Your task to perform on an android device: clear history in the chrome app Image 0: 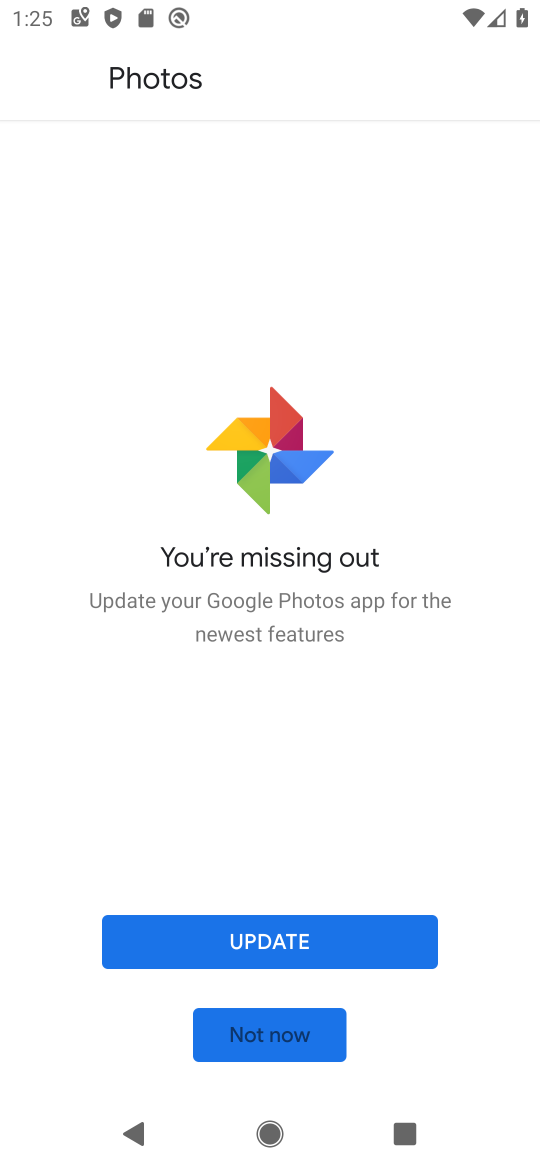
Step 0: press home button
Your task to perform on an android device: clear history in the chrome app Image 1: 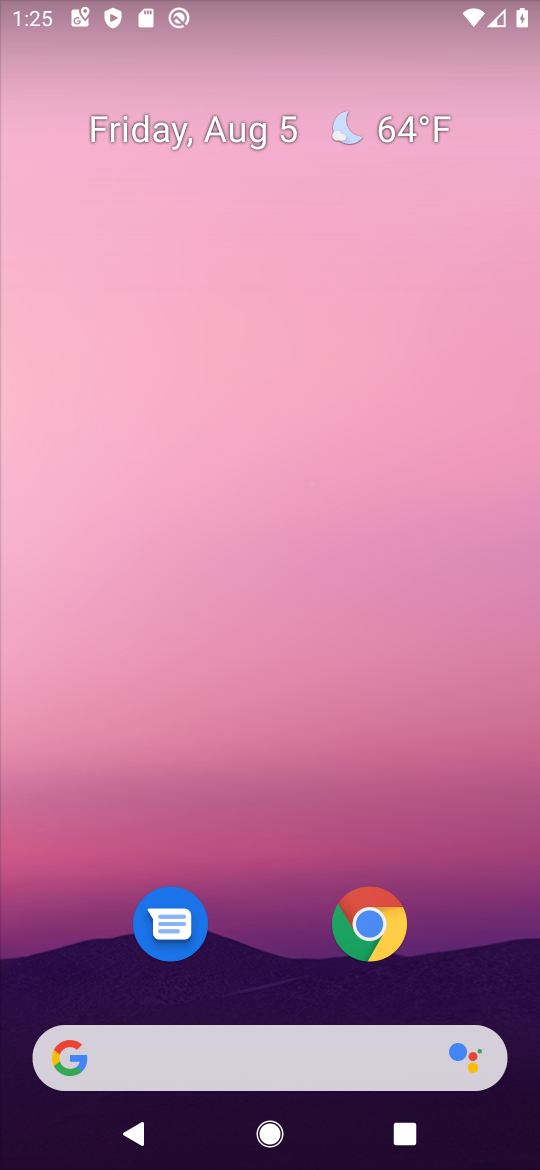
Step 1: click (374, 923)
Your task to perform on an android device: clear history in the chrome app Image 2: 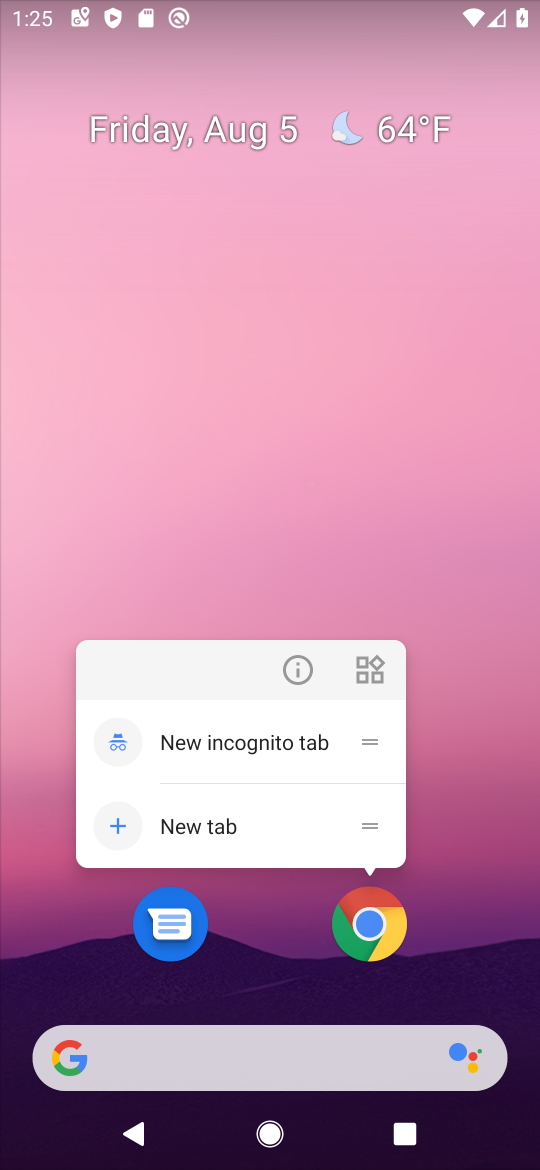
Step 2: click (374, 923)
Your task to perform on an android device: clear history in the chrome app Image 3: 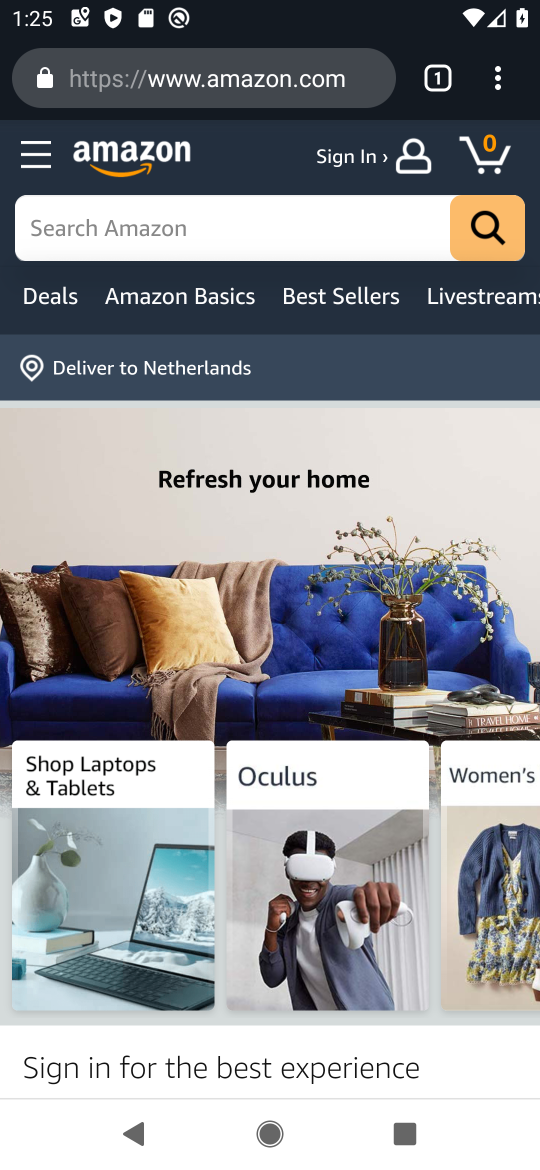
Step 3: click (501, 82)
Your task to perform on an android device: clear history in the chrome app Image 4: 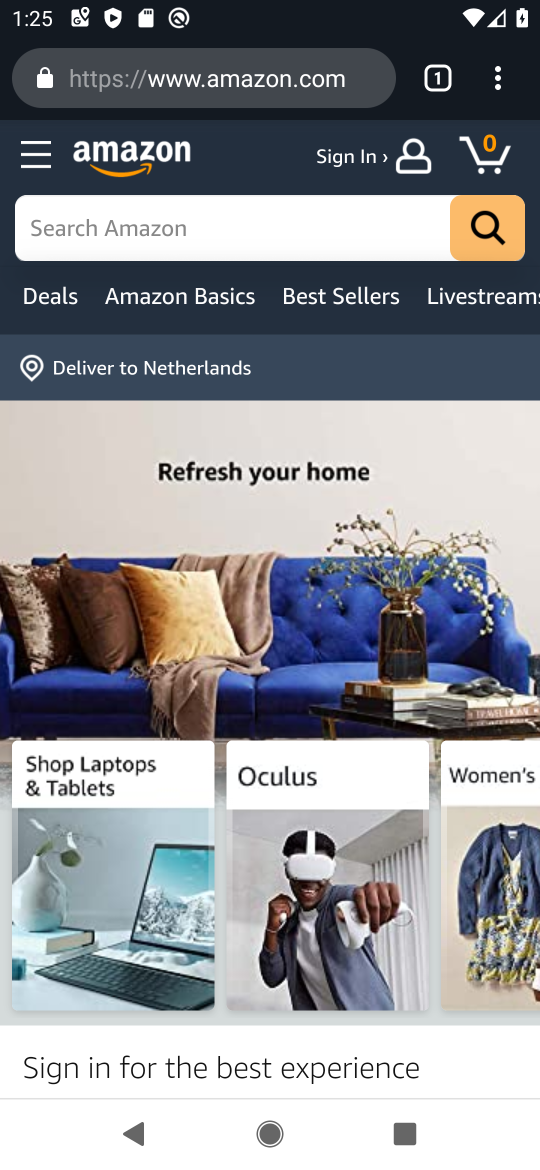
Step 4: click (510, 84)
Your task to perform on an android device: clear history in the chrome app Image 5: 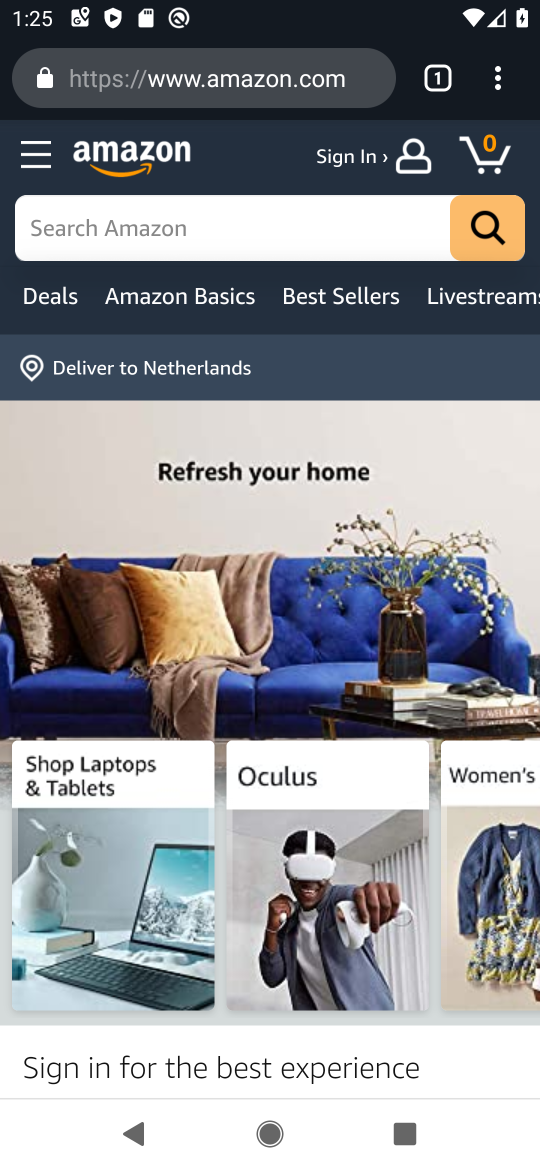
Step 5: drag from (504, 72) to (287, 544)
Your task to perform on an android device: clear history in the chrome app Image 6: 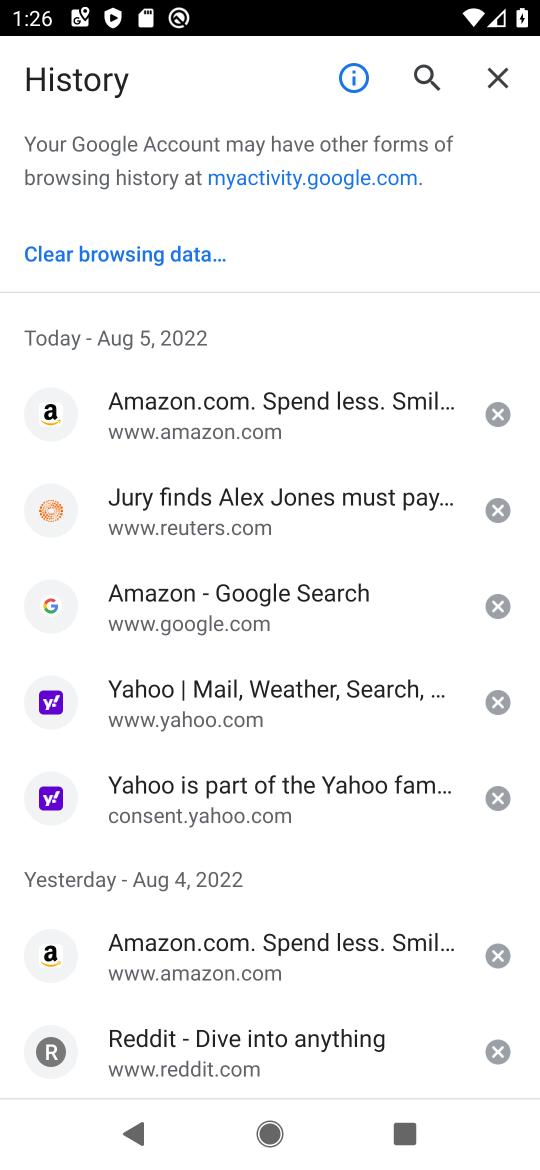
Step 6: click (144, 254)
Your task to perform on an android device: clear history in the chrome app Image 7: 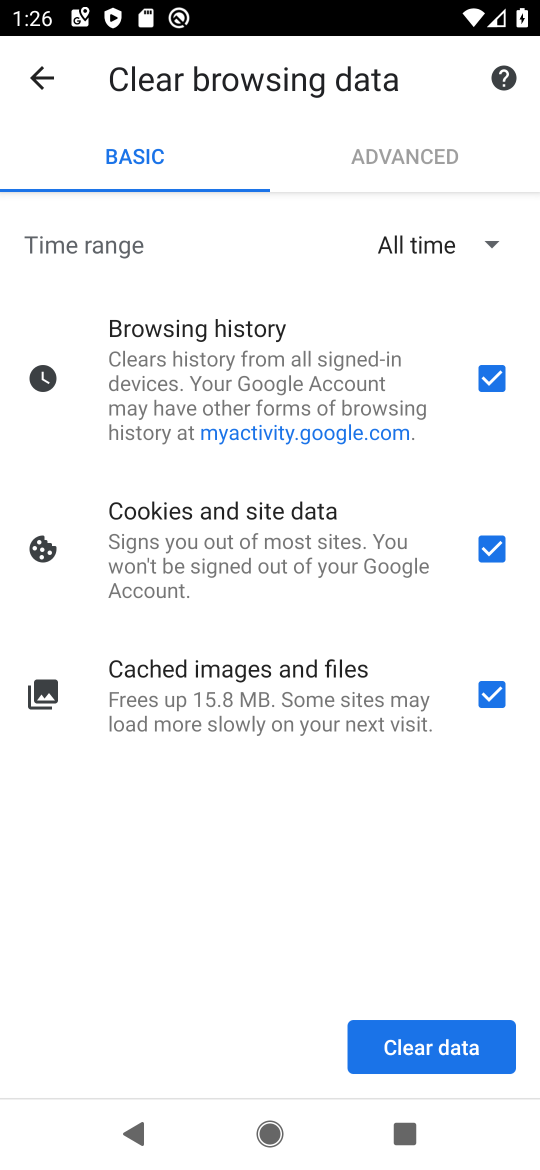
Step 7: click (441, 1042)
Your task to perform on an android device: clear history in the chrome app Image 8: 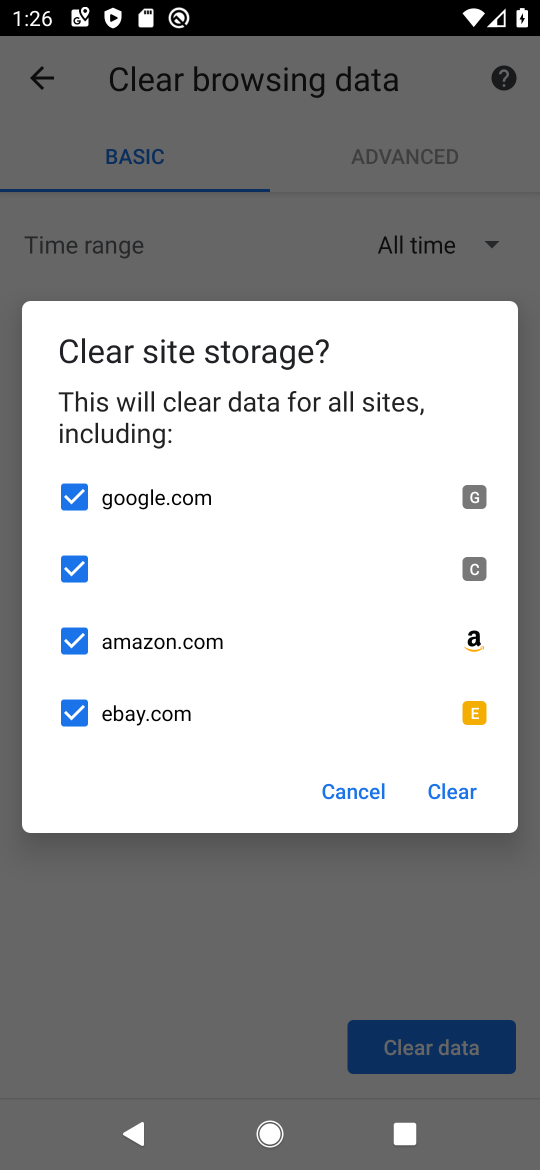
Step 8: click (473, 803)
Your task to perform on an android device: clear history in the chrome app Image 9: 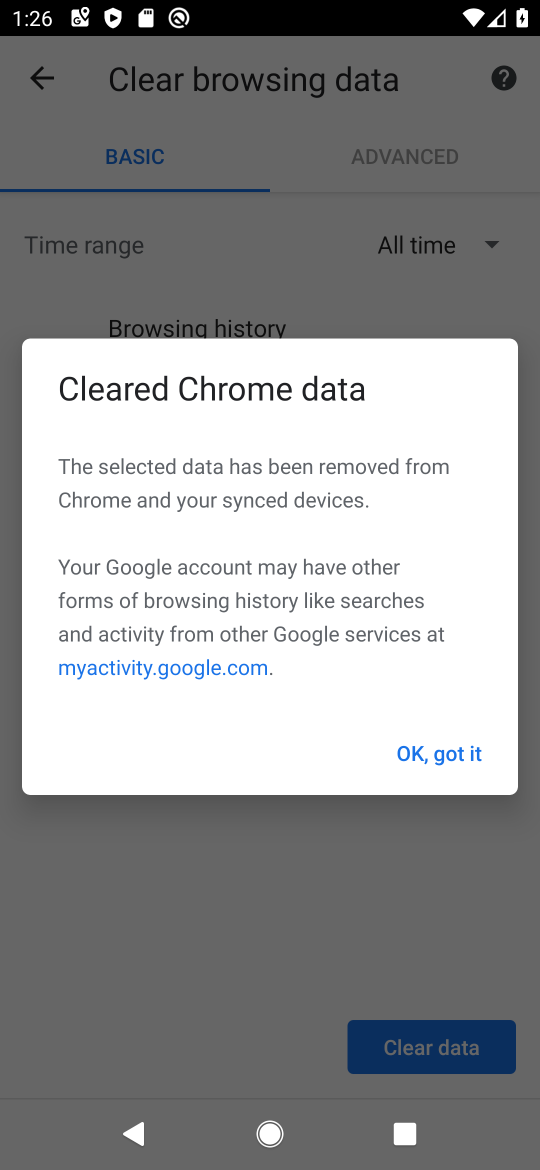
Step 9: click (428, 766)
Your task to perform on an android device: clear history in the chrome app Image 10: 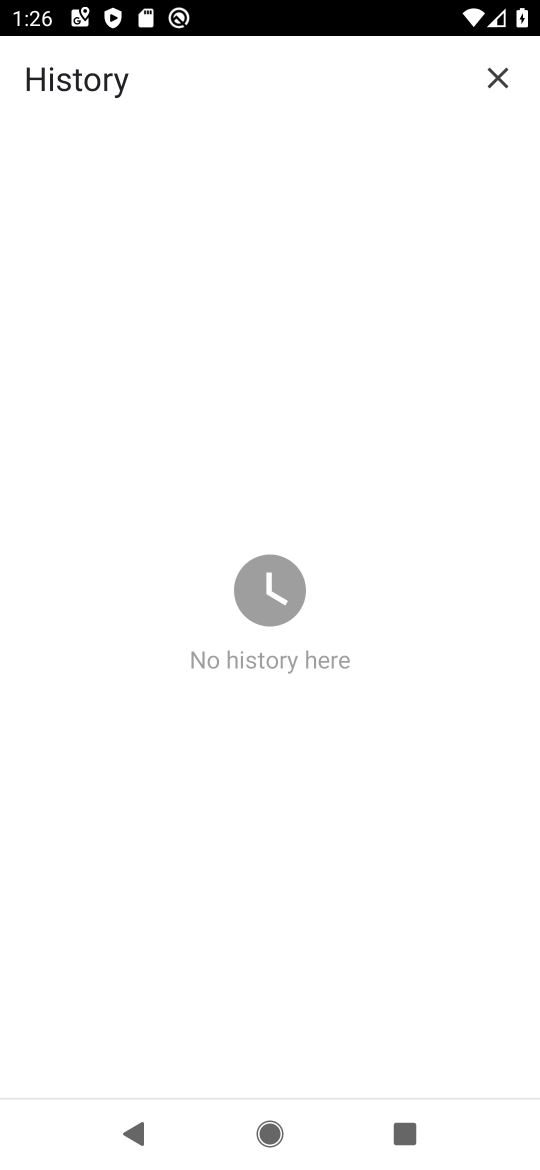
Step 10: task complete